Your task to perform on an android device: Go to display settings Image 0: 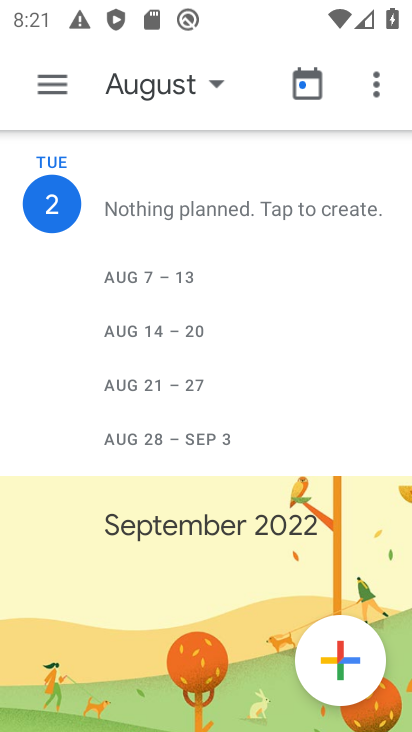
Step 0: press home button
Your task to perform on an android device: Go to display settings Image 1: 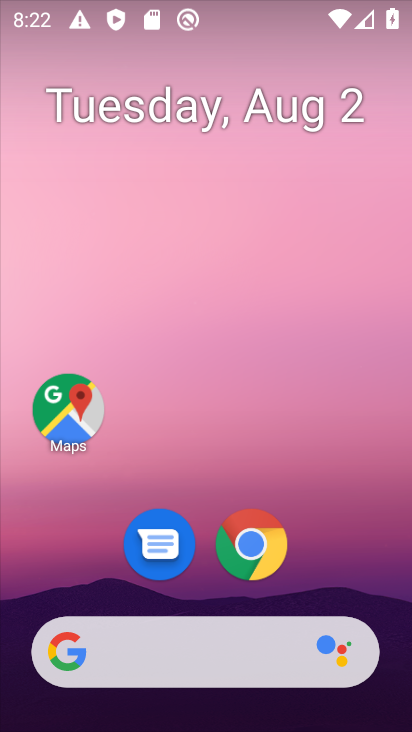
Step 1: drag from (159, 619) to (63, 172)
Your task to perform on an android device: Go to display settings Image 2: 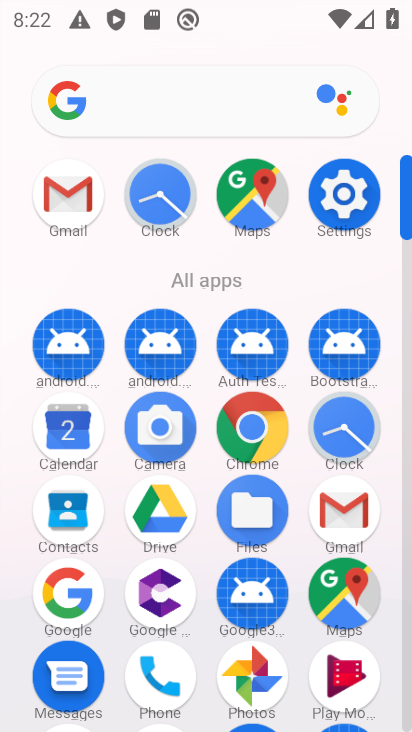
Step 2: click (335, 194)
Your task to perform on an android device: Go to display settings Image 3: 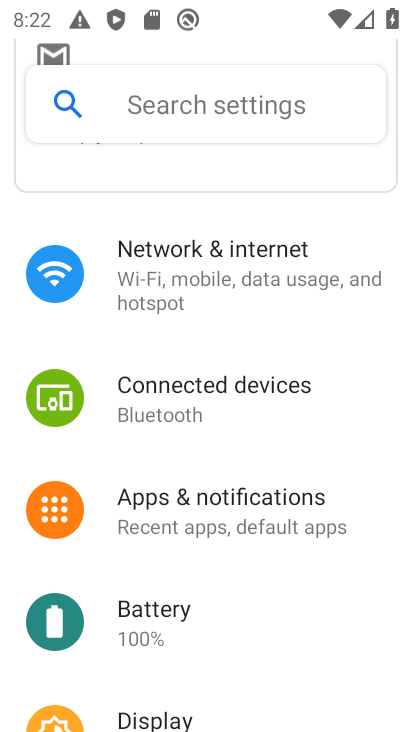
Step 3: click (177, 722)
Your task to perform on an android device: Go to display settings Image 4: 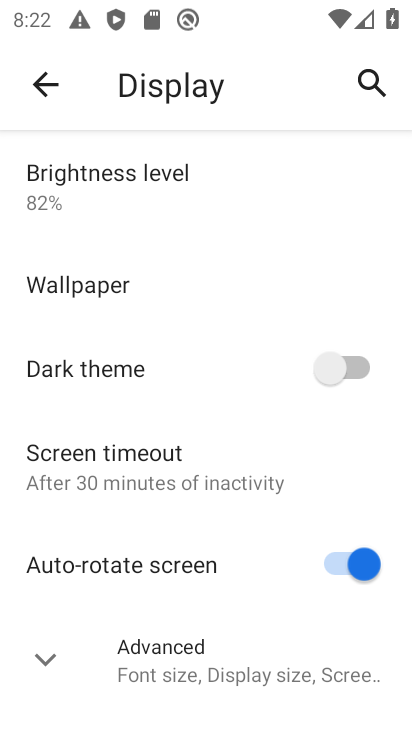
Step 4: click (164, 646)
Your task to perform on an android device: Go to display settings Image 5: 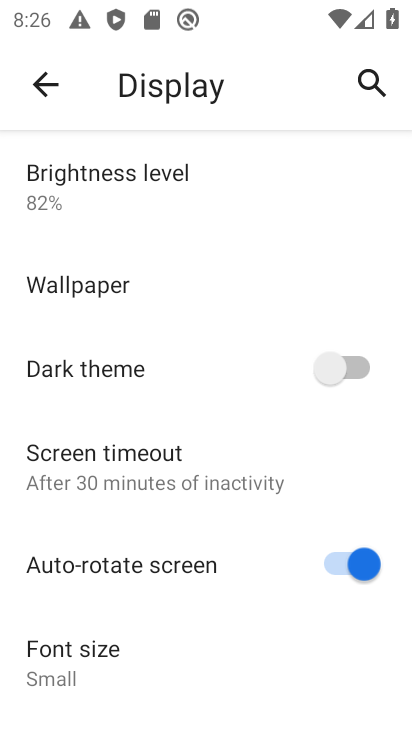
Step 5: task complete